Your task to perform on an android device: Open my contact list Image 0: 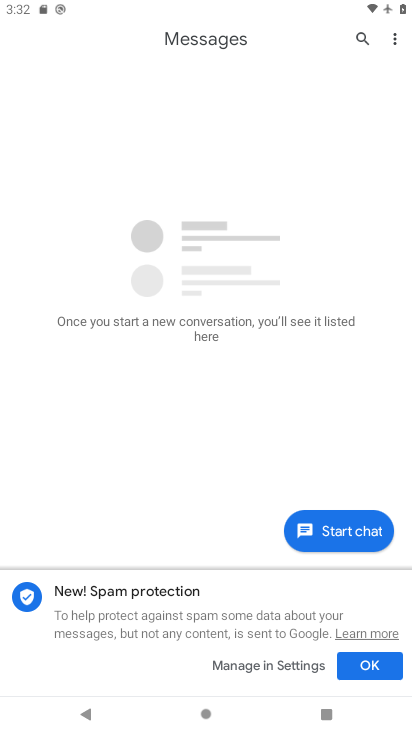
Step 0: press home button
Your task to perform on an android device: Open my contact list Image 1: 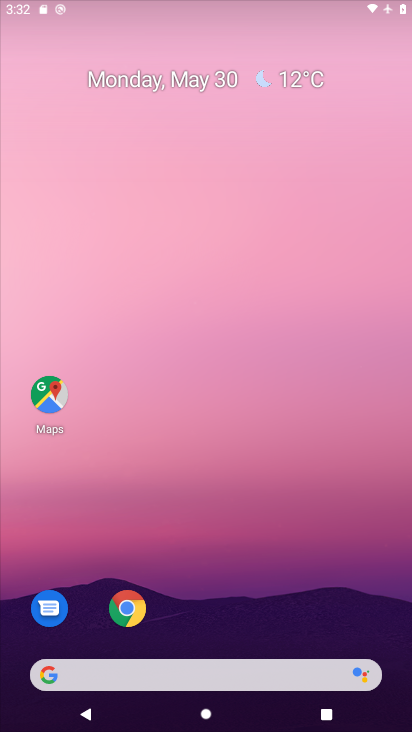
Step 1: drag from (284, 534) to (155, 56)
Your task to perform on an android device: Open my contact list Image 2: 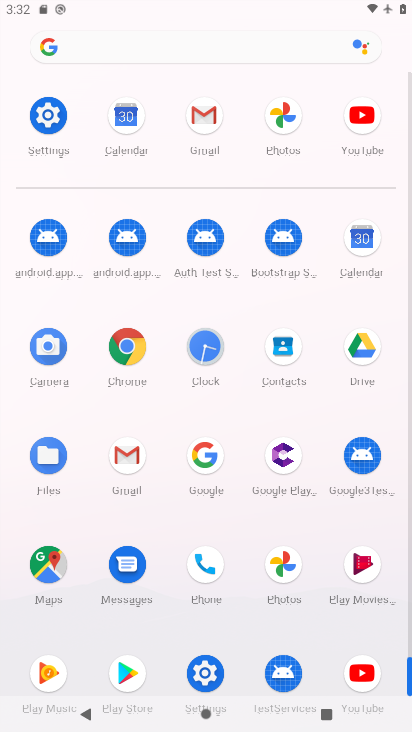
Step 2: click (278, 350)
Your task to perform on an android device: Open my contact list Image 3: 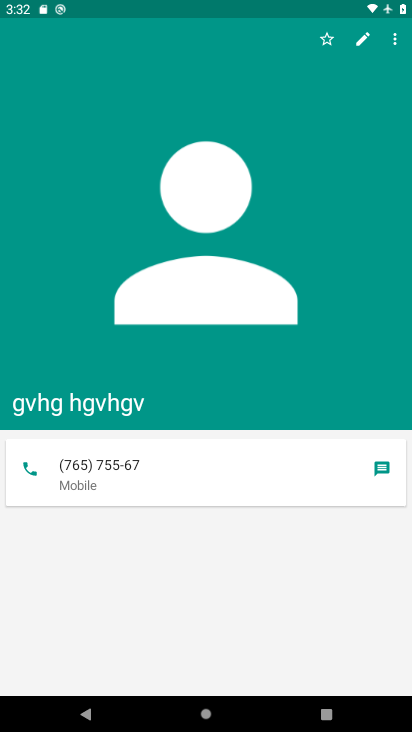
Step 3: task complete